Your task to perform on an android device: Open Google Maps and go to "Timeline" Image 0: 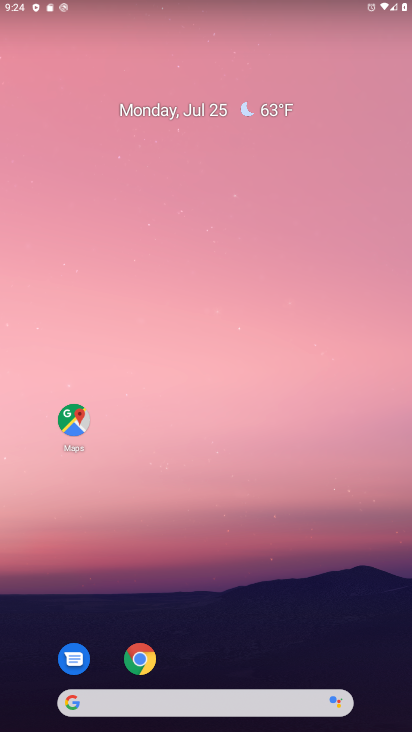
Step 0: drag from (216, 728) to (233, 112)
Your task to perform on an android device: Open Google Maps and go to "Timeline" Image 1: 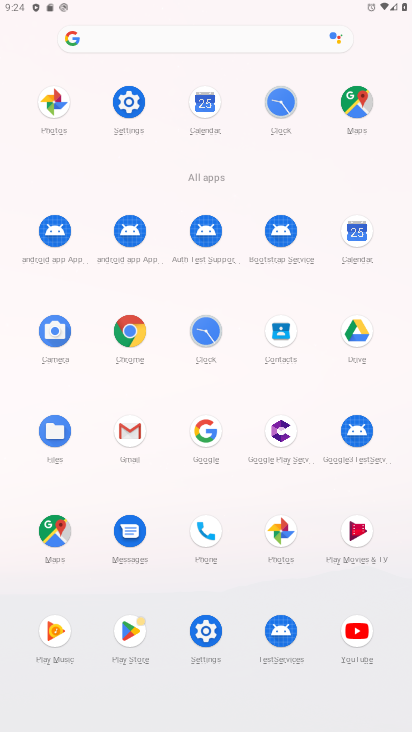
Step 1: click (58, 531)
Your task to perform on an android device: Open Google Maps and go to "Timeline" Image 2: 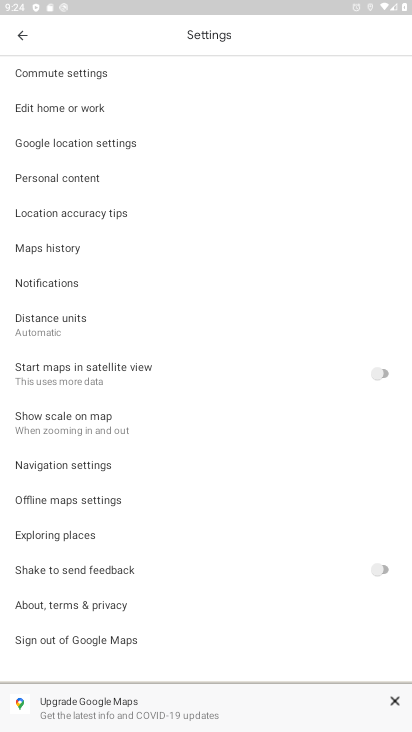
Step 2: click (24, 27)
Your task to perform on an android device: Open Google Maps and go to "Timeline" Image 3: 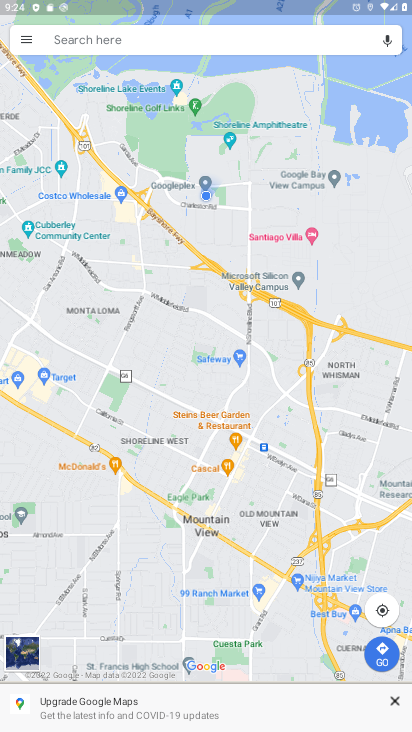
Step 3: click (27, 41)
Your task to perform on an android device: Open Google Maps and go to "Timeline" Image 4: 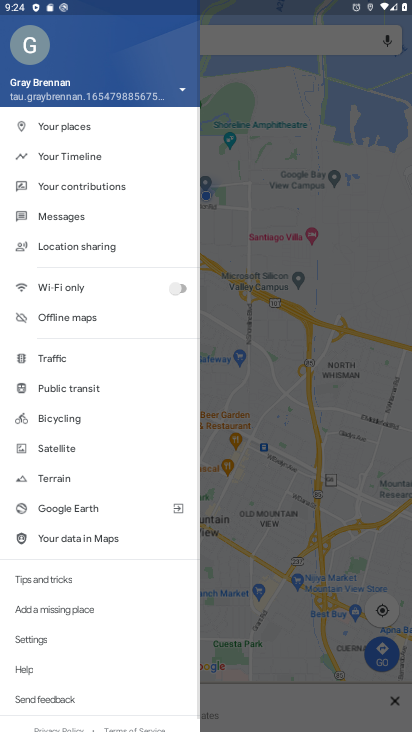
Step 4: click (62, 150)
Your task to perform on an android device: Open Google Maps and go to "Timeline" Image 5: 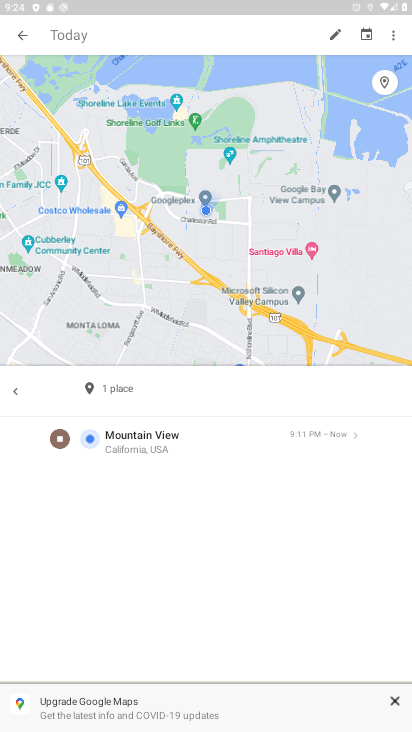
Step 5: task complete